Your task to perform on an android device: What's the news this afternoon? Image 0: 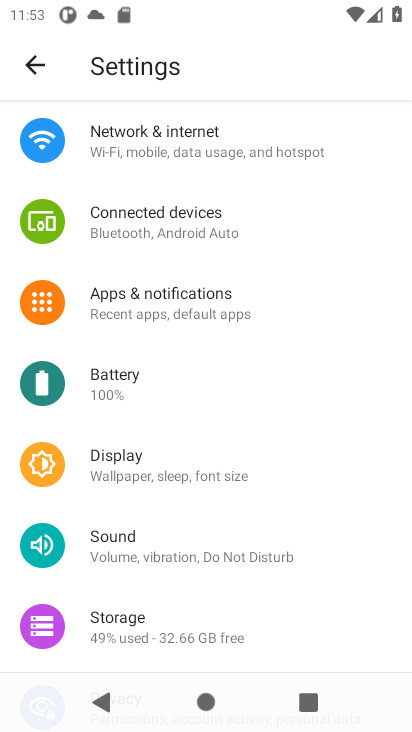
Step 0: press home button
Your task to perform on an android device: What's the news this afternoon? Image 1: 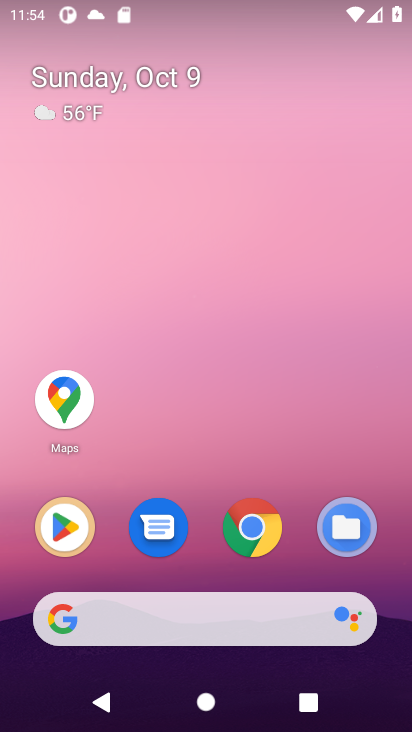
Step 1: click (212, 617)
Your task to perform on an android device: What's the news this afternoon? Image 2: 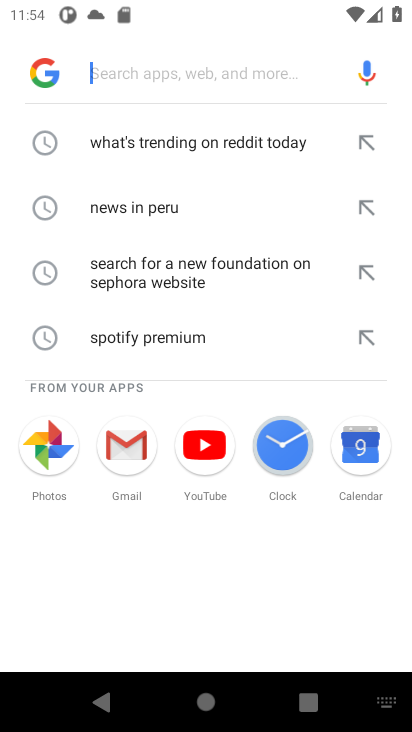
Step 2: click (156, 72)
Your task to perform on an android device: What's the news this afternoon? Image 3: 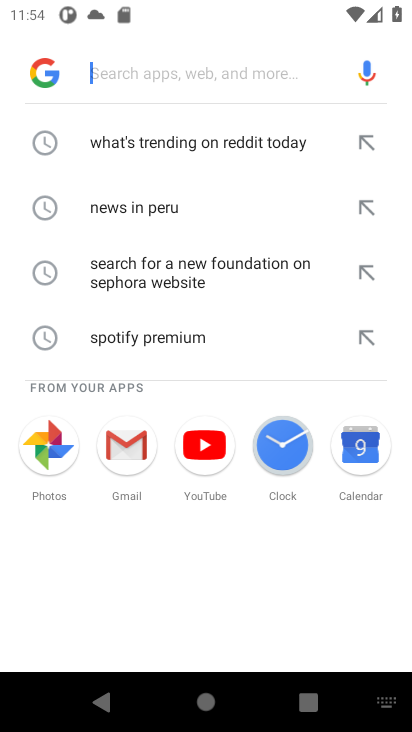
Step 3: type " news this afternoon"
Your task to perform on an android device: What's the news this afternoon? Image 4: 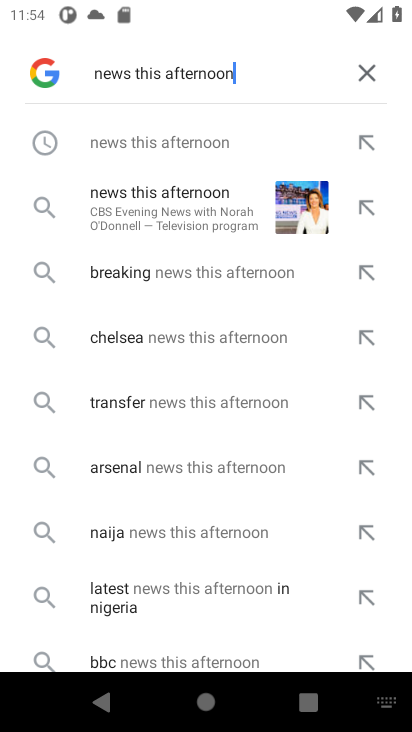
Step 4: click (151, 198)
Your task to perform on an android device: What's the news this afternoon? Image 5: 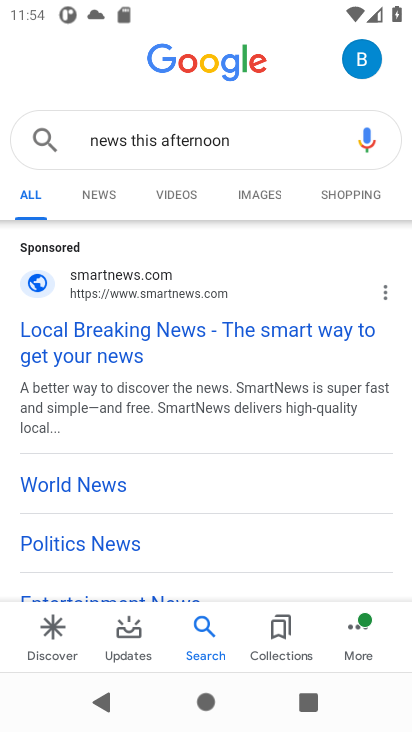
Step 5: drag from (123, 421) to (145, 234)
Your task to perform on an android device: What's the news this afternoon? Image 6: 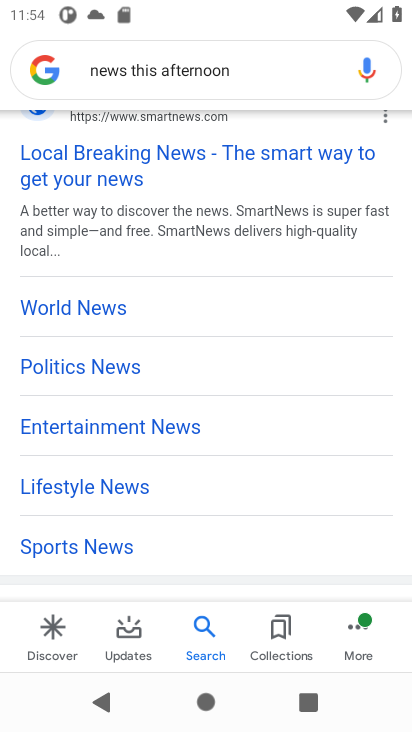
Step 6: drag from (185, 479) to (188, 271)
Your task to perform on an android device: What's the news this afternoon? Image 7: 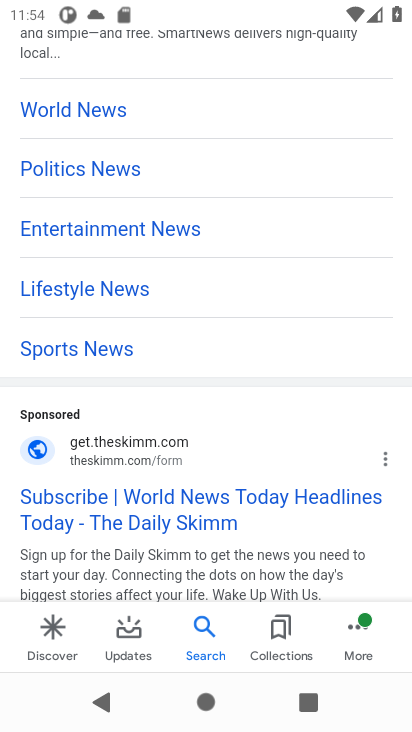
Step 7: drag from (209, 517) to (211, 331)
Your task to perform on an android device: What's the news this afternoon? Image 8: 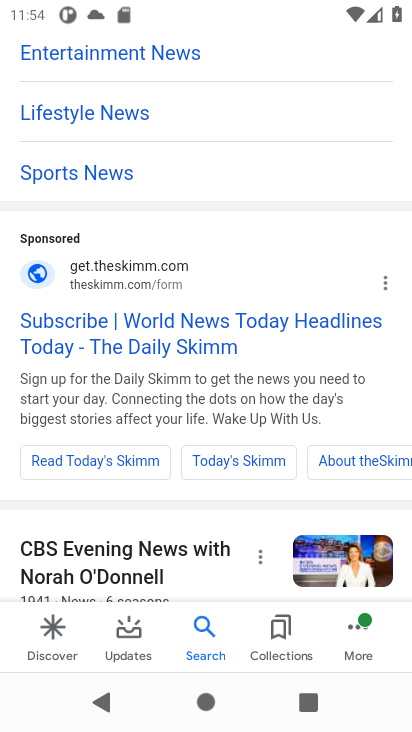
Step 8: drag from (198, 468) to (219, 250)
Your task to perform on an android device: What's the news this afternoon? Image 9: 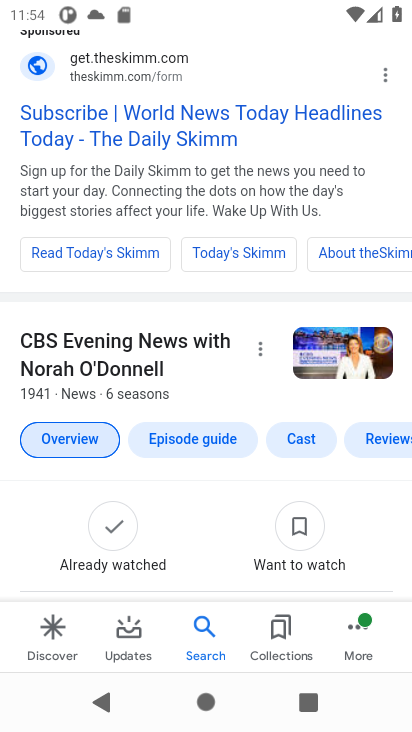
Step 9: click (159, 369)
Your task to perform on an android device: What's the news this afternoon? Image 10: 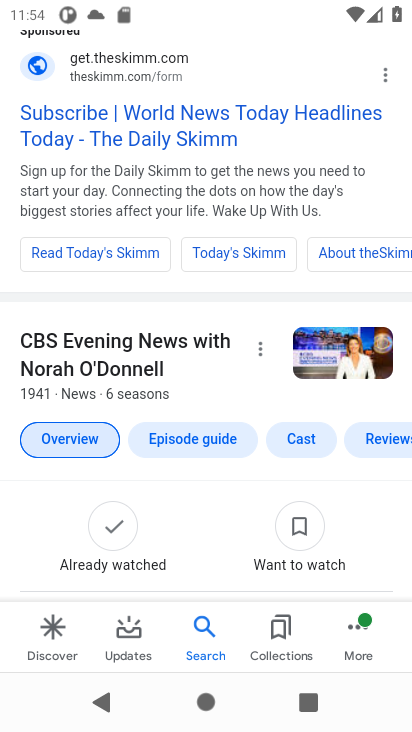
Step 10: drag from (220, 523) to (243, 286)
Your task to perform on an android device: What's the news this afternoon? Image 11: 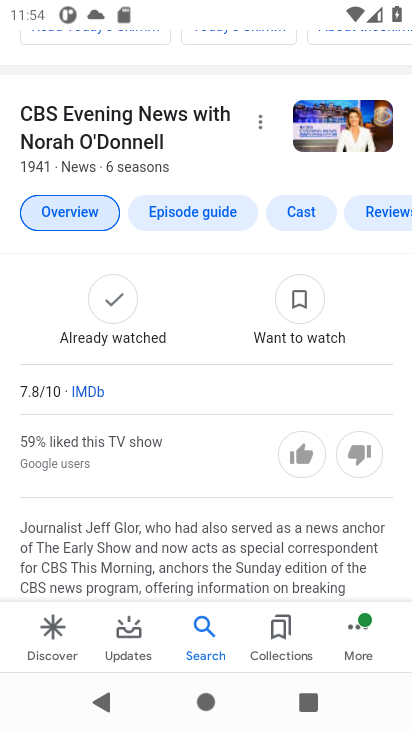
Step 11: drag from (144, 536) to (197, 283)
Your task to perform on an android device: What's the news this afternoon? Image 12: 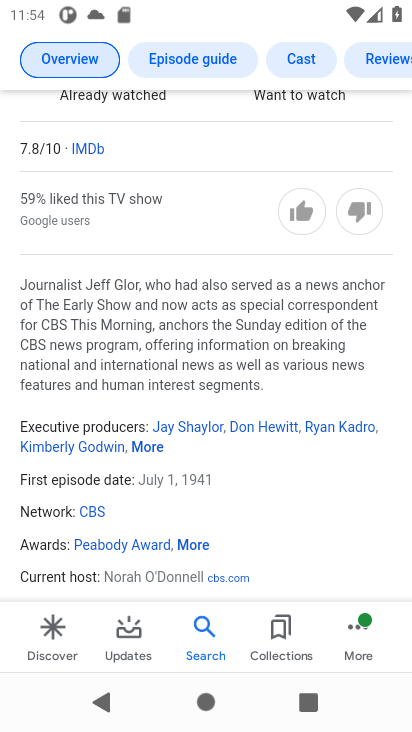
Step 12: drag from (164, 455) to (195, 234)
Your task to perform on an android device: What's the news this afternoon? Image 13: 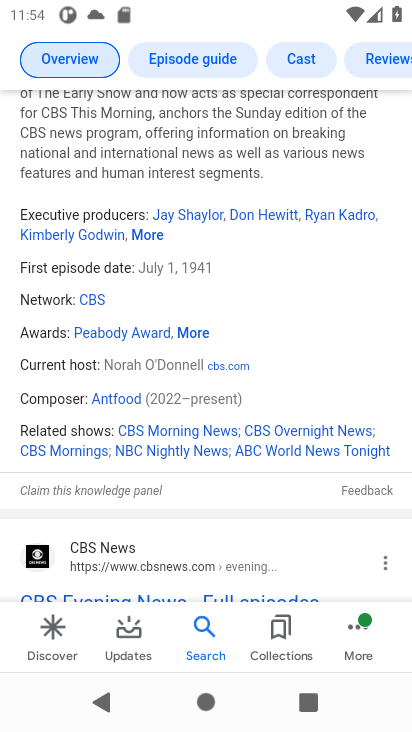
Step 13: drag from (211, 468) to (213, 247)
Your task to perform on an android device: What's the news this afternoon? Image 14: 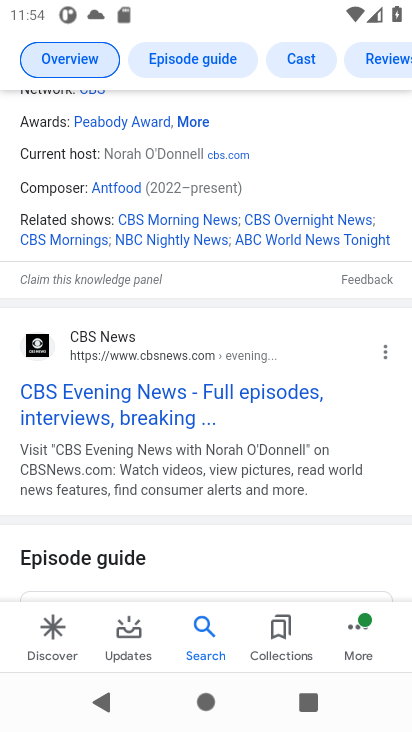
Step 14: click (81, 402)
Your task to perform on an android device: What's the news this afternoon? Image 15: 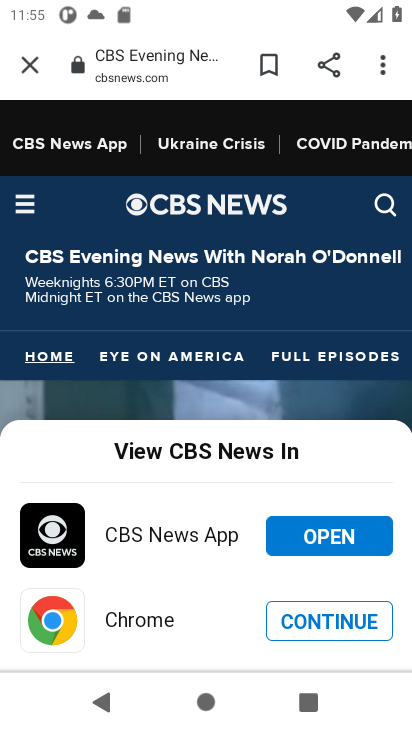
Step 15: task complete